Your task to perform on an android device: change timer sound Image 0: 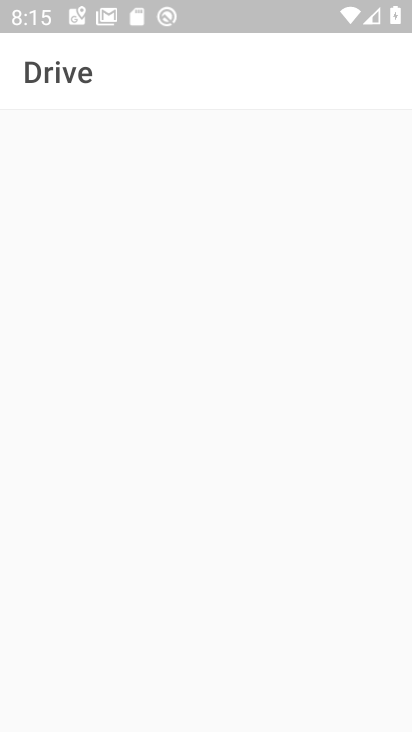
Step 0: press home button
Your task to perform on an android device: change timer sound Image 1: 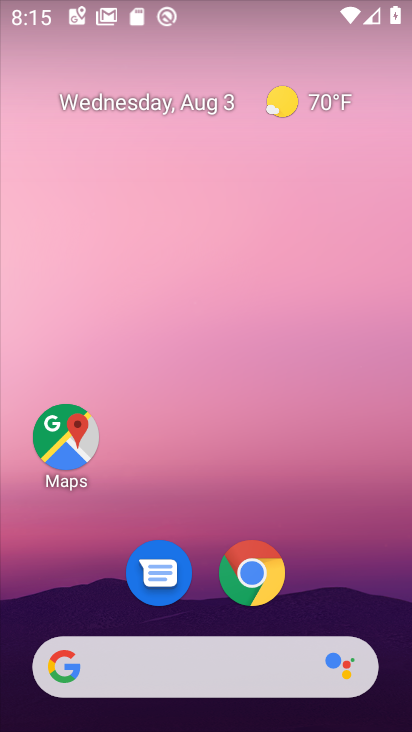
Step 1: drag from (329, 641) to (349, 1)
Your task to perform on an android device: change timer sound Image 2: 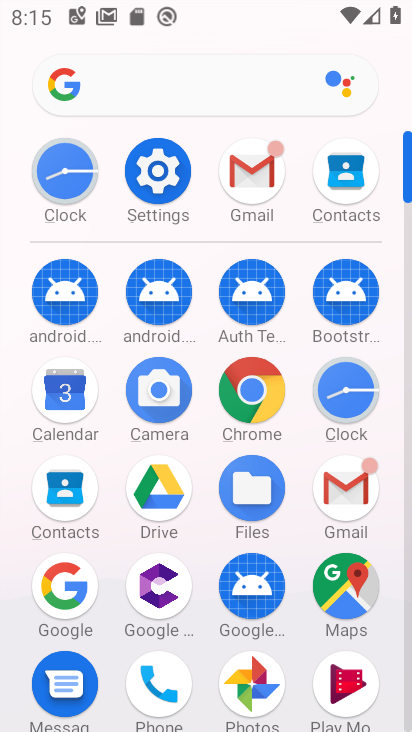
Step 2: click (345, 398)
Your task to perform on an android device: change timer sound Image 3: 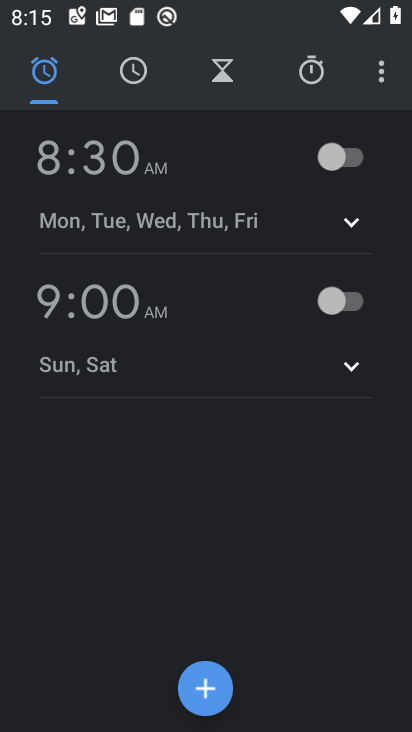
Step 3: click (379, 74)
Your task to perform on an android device: change timer sound Image 4: 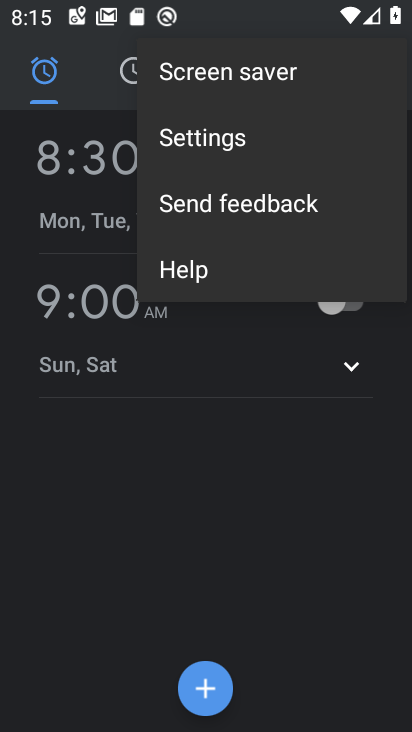
Step 4: click (225, 139)
Your task to perform on an android device: change timer sound Image 5: 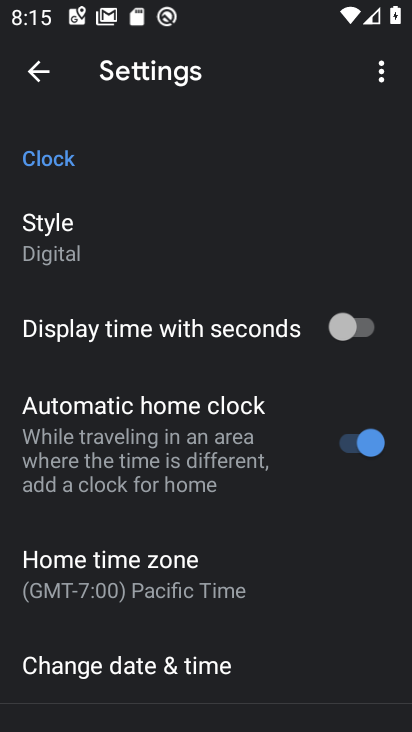
Step 5: drag from (162, 589) to (125, 113)
Your task to perform on an android device: change timer sound Image 6: 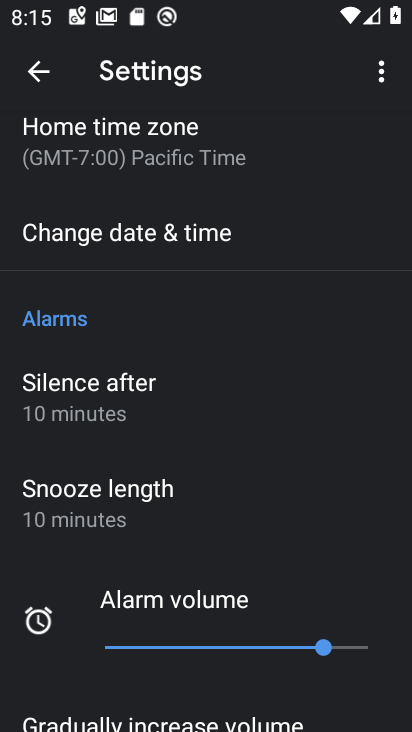
Step 6: drag from (132, 444) to (96, 94)
Your task to perform on an android device: change timer sound Image 7: 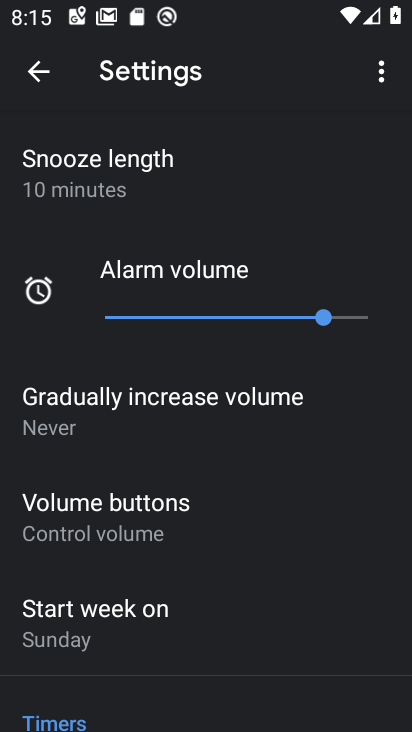
Step 7: drag from (99, 509) to (99, 123)
Your task to perform on an android device: change timer sound Image 8: 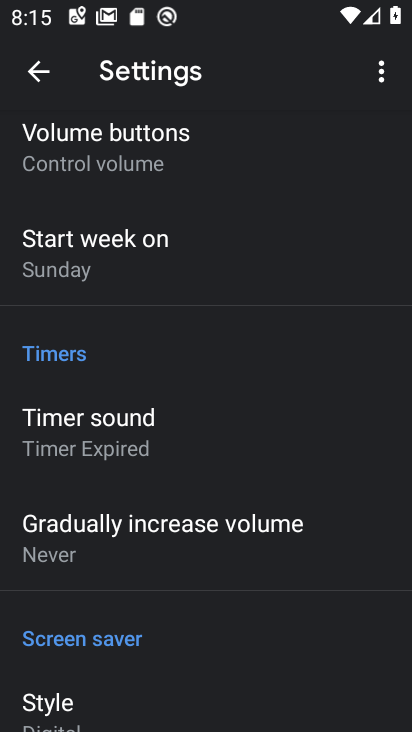
Step 8: click (102, 444)
Your task to perform on an android device: change timer sound Image 9: 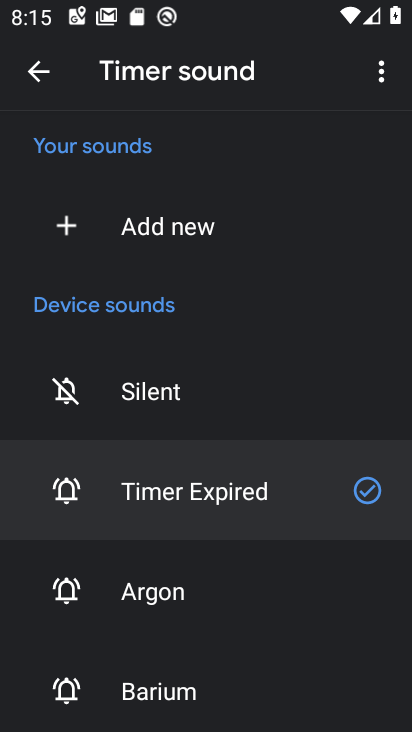
Step 9: click (152, 593)
Your task to perform on an android device: change timer sound Image 10: 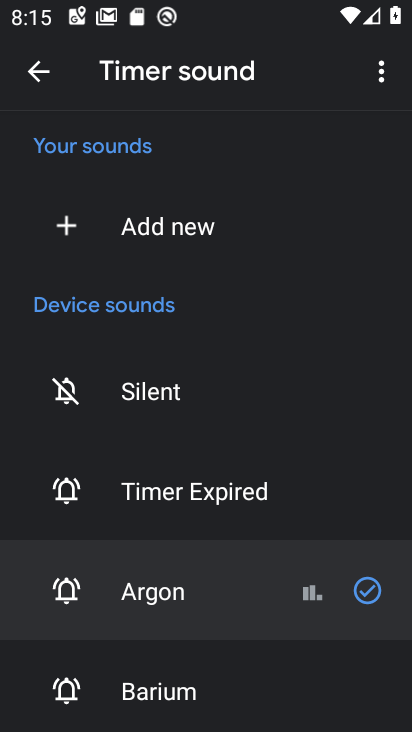
Step 10: task complete